Your task to perform on an android device: Go to internet settings Image 0: 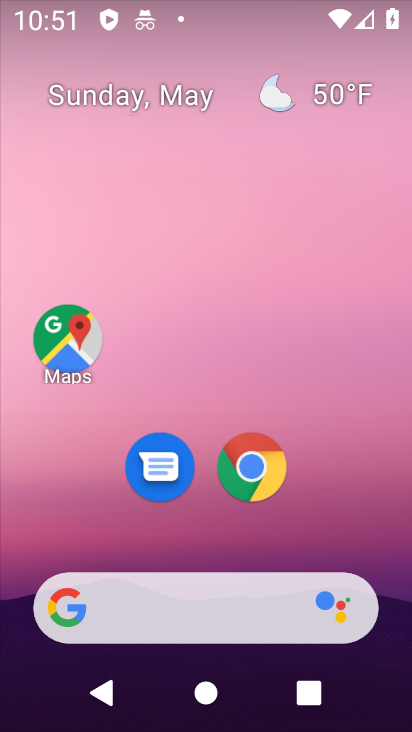
Step 0: drag from (176, 557) to (209, 134)
Your task to perform on an android device: Go to internet settings Image 1: 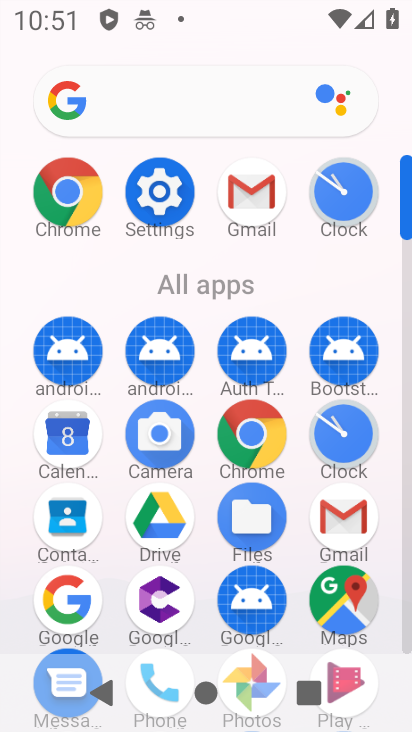
Step 1: drag from (299, 621) to (311, 386)
Your task to perform on an android device: Go to internet settings Image 2: 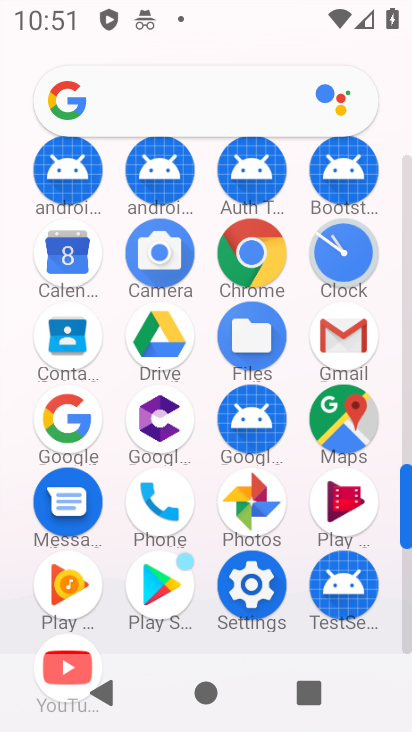
Step 2: click (250, 596)
Your task to perform on an android device: Go to internet settings Image 3: 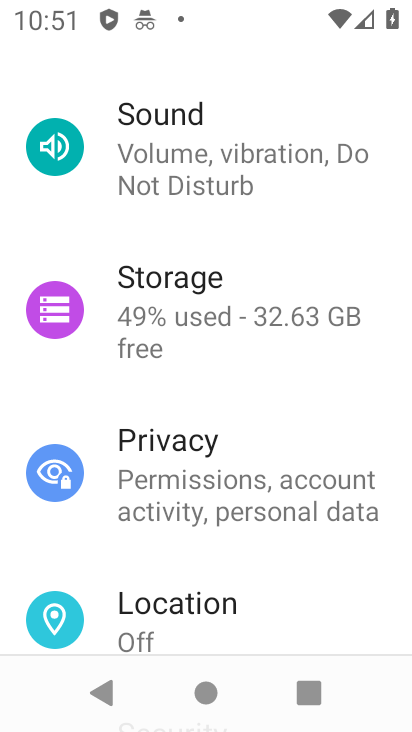
Step 3: drag from (296, 123) to (260, 392)
Your task to perform on an android device: Go to internet settings Image 4: 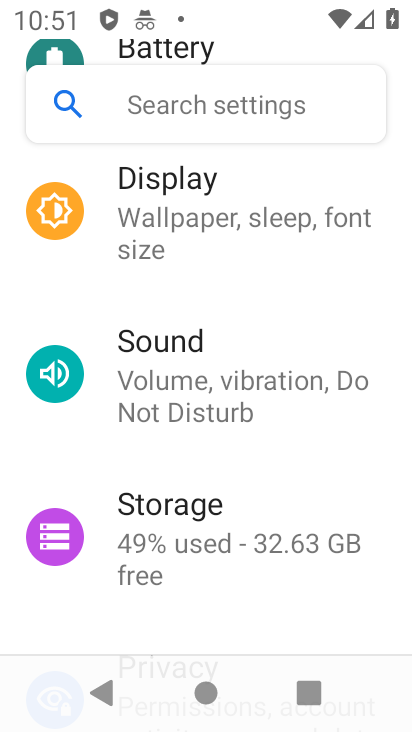
Step 4: drag from (331, 200) to (277, 375)
Your task to perform on an android device: Go to internet settings Image 5: 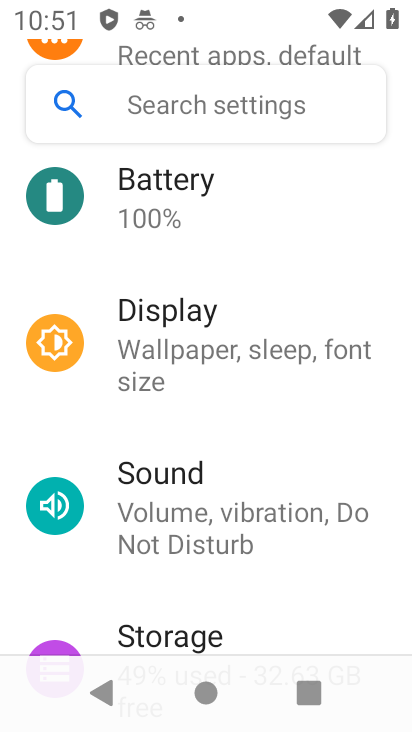
Step 5: drag from (297, 236) to (268, 377)
Your task to perform on an android device: Go to internet settings Image 6: 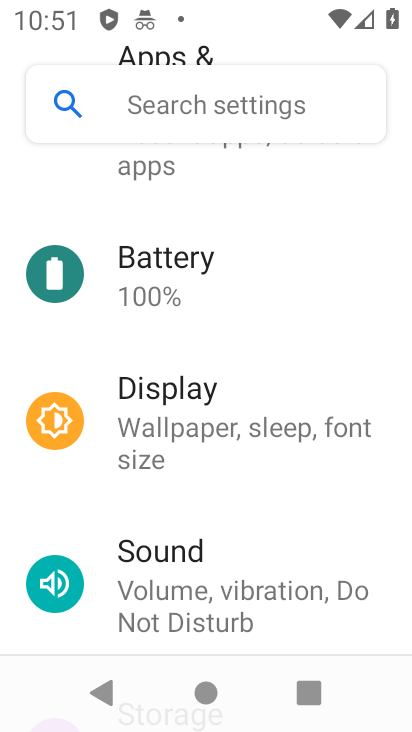
Step 6: drag from (322, 216) to (380, 189)
Your task to perform on an android device: Go to internet settings Image 7: 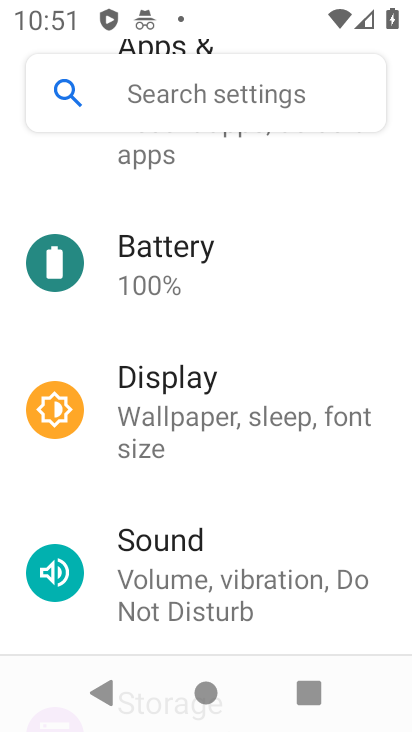
Step 7: drag from (378, 136) to (279, 555)
Your task to perform on an android device: Go to internet settings Image 8: 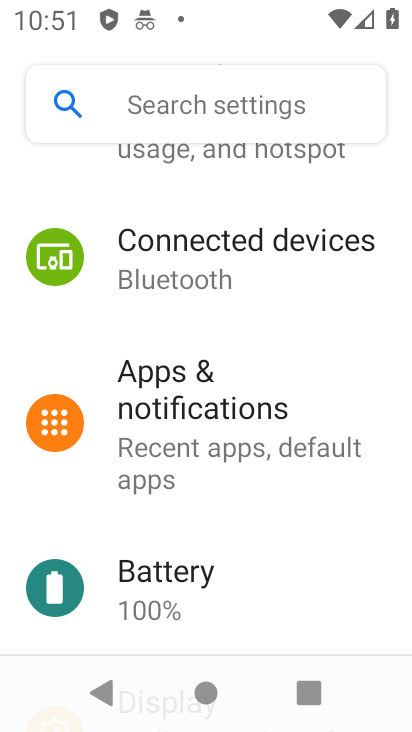
Step 8: click (325, 180)
Your task to perform on an android device: Go to internet settings Image 9: 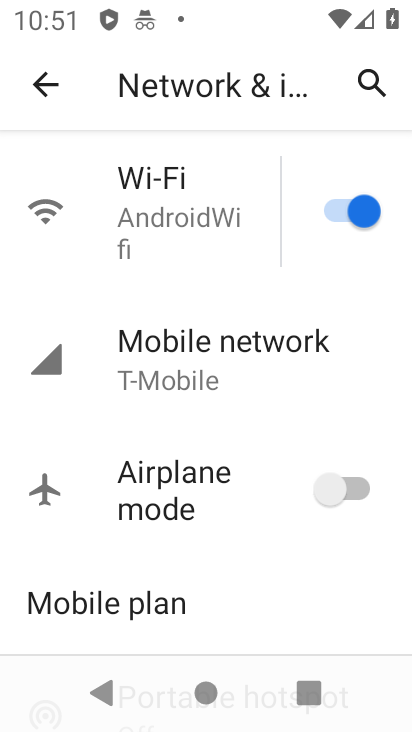
Step 9: click (257, 369)
Your task to perform on an android device: Go to internet settings Image 10: 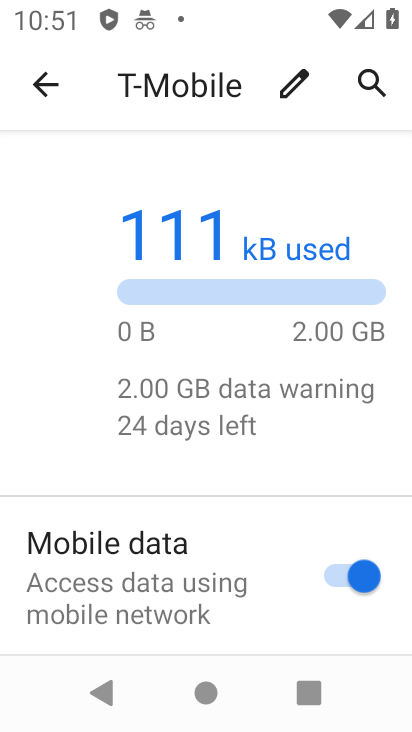
Step 10: task complete